Your task to perform on an android device: Open wifi settings Image 0: 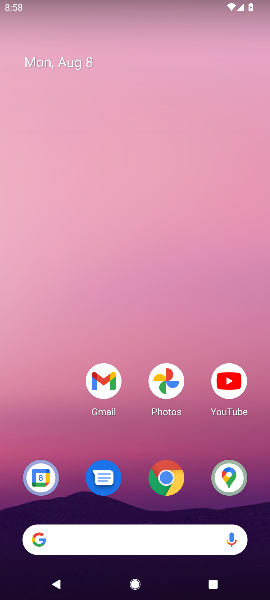
Step 0: press home button
Your task to perform on an android device: Open wifi settings Image 1: 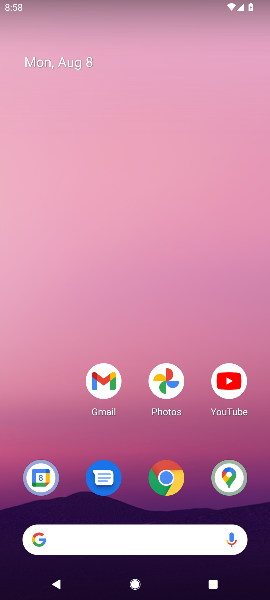
Step 1: drag from (112, 536) to (241, 250)
Your task to perform on an android device: Open wifi settings Image 2: 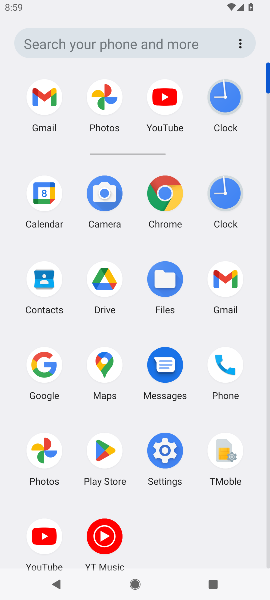
Step 2: click (163, 449)
Your task to perform on an android device: Open wifi settings Image 3: 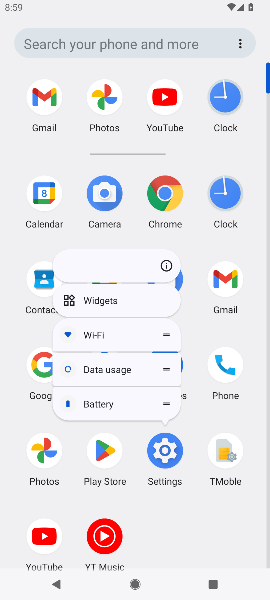
Step 3: click (163, 454)
Your task to perform on an android device: Open wifi settings Image 4: 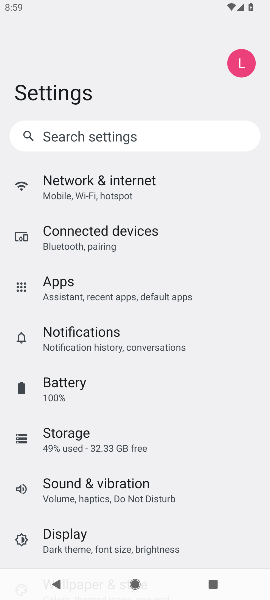
Step 4: click (111, 190)
Your task to perform on an android device: Open wifi settings Image 5: 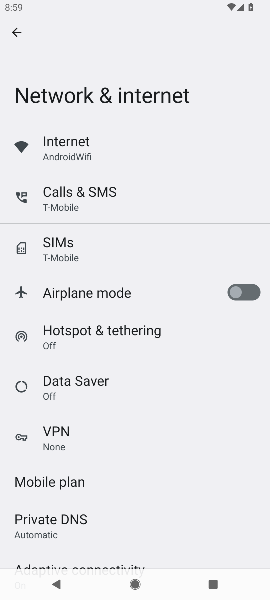
Step 5: click (71, 149)
Your task to perform on an android device: Open wifi settings Image 6: 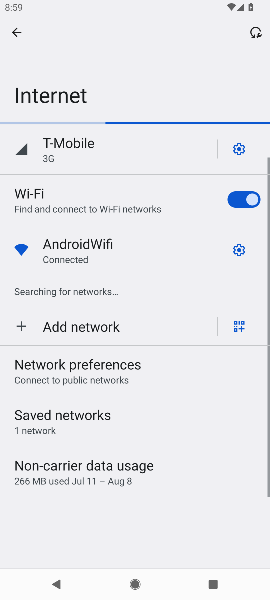
Step 6: click (237, 250)
Your task to perform on an android device: Open wifi settings Image 7: 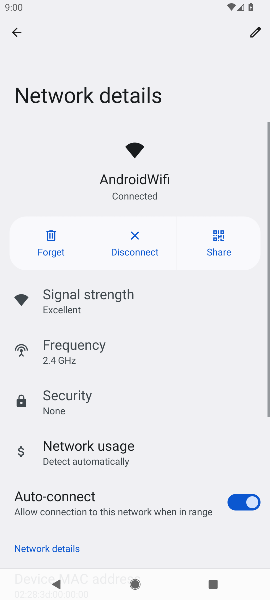
Step 7: task complete